Your task to perform on an android device: open chrome and create a bookmark for the current page Image 0: 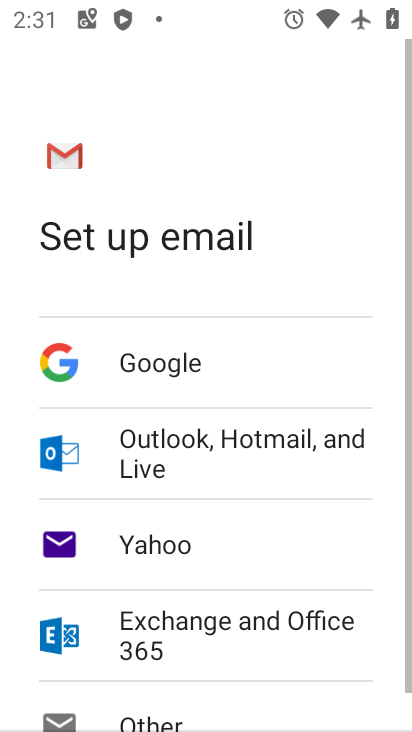
Step 0: press home button
Your task to perform on an android device: open chrome and create a bookmark for the current page Image 1: 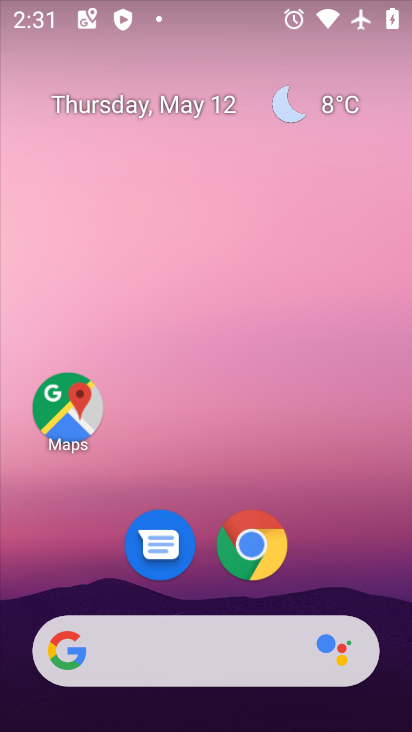
Step 1: click (256, 547)
Your task to perform on an android device: open chrome and create a bookmark for the current page Image 2: 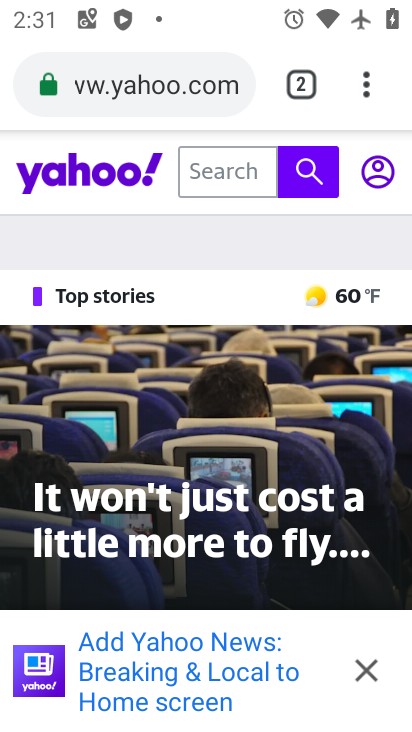
Step 2: click (365, 94)
Your task to perform on an android device: open chrome and create a bookmark for the current page Image 3: 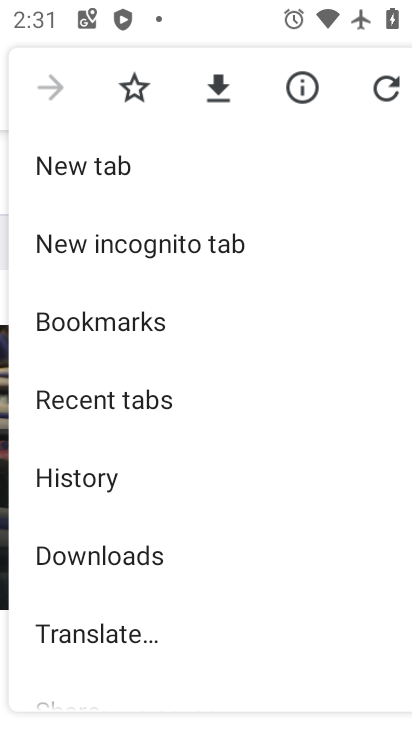
Step 3: click (133, 90)
Your task to perform on an android device: open chrome and create a bookmark for the current page Image 4: 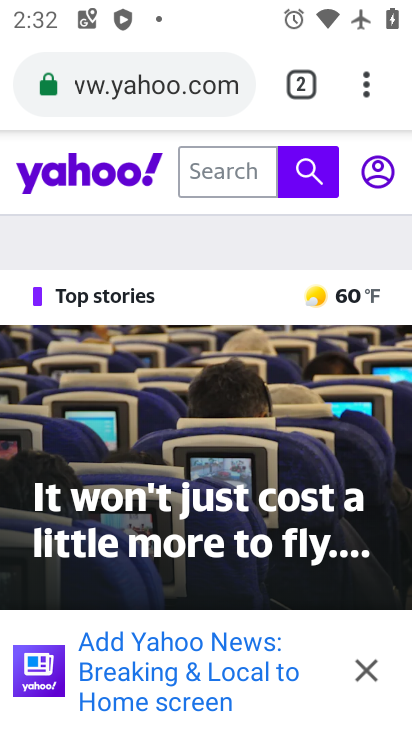
Step 4: task complete